Your task to perform on an android device: Open Android settings Image 0: 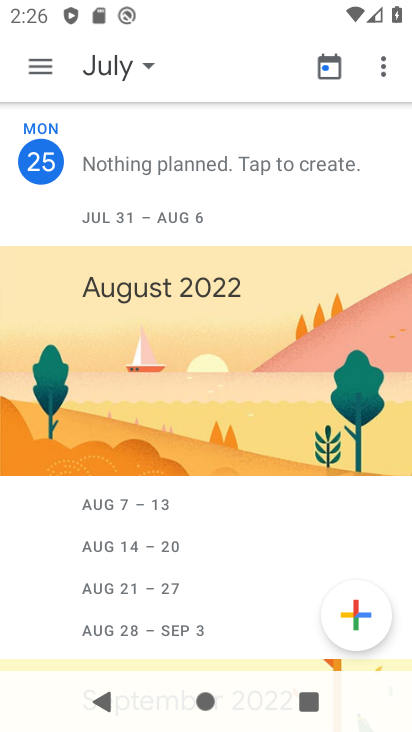
Step 0: press home button
Your task to perform on an android device: Open Android settings Image 1: 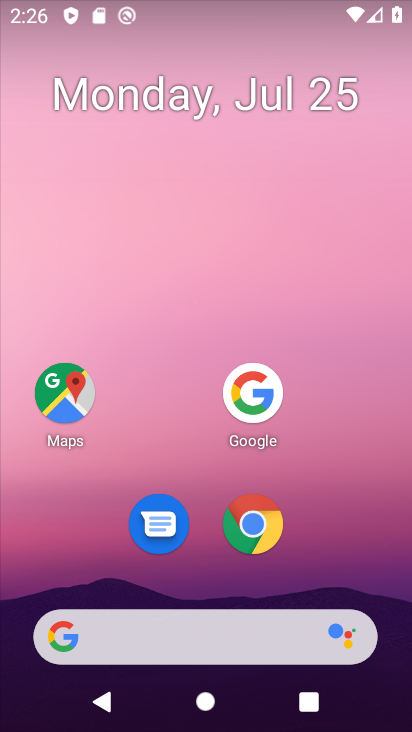
Step 1: drag from (154, 580) to (275, 171)
Your task to perform on an android device: Open Android settings Image 2: 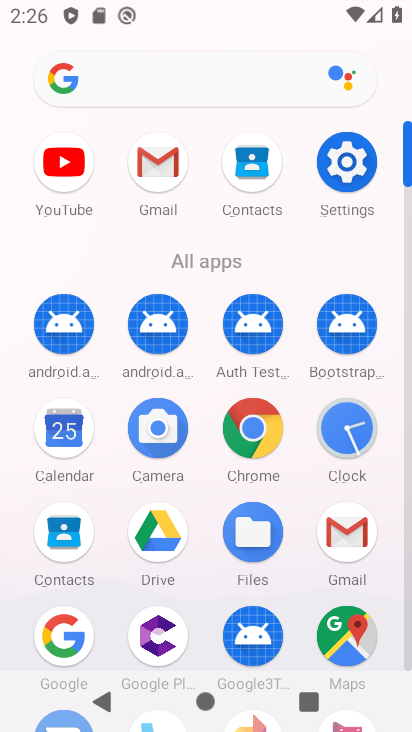
Step 2: click (354, 168)
Your task to perform on an android device: Open Android settings Image 3: 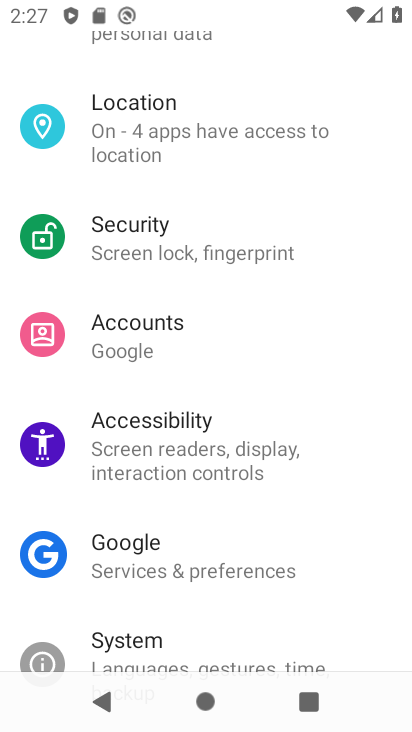
Step 3: task complete